Your task to perform on an android device: toggle priority inbox in the gmail app Image 0: 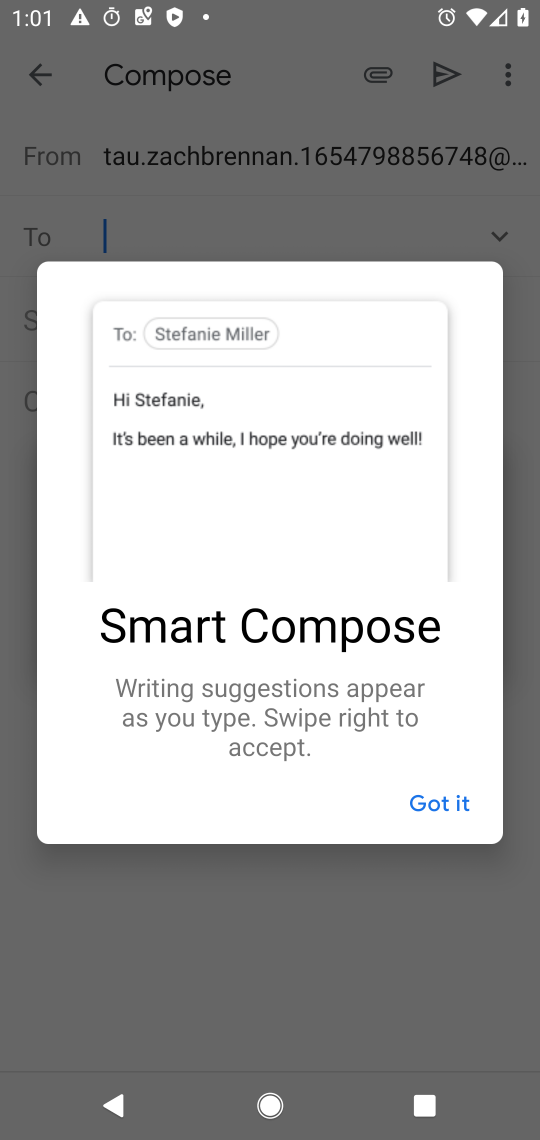
Step 0: click (449, 807)
Your task to perform on an android device: toggle priority inbox in the gmail app Image 1: 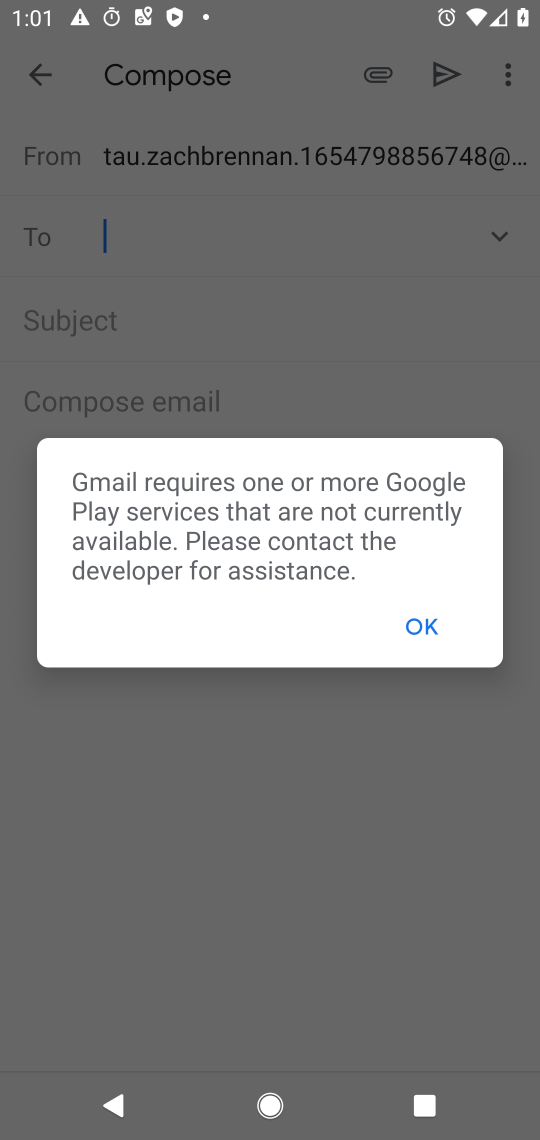
Step 1: click (413, 625)
Your task to perform on an android device: toggle priority inbox in the gmail app Image 2: 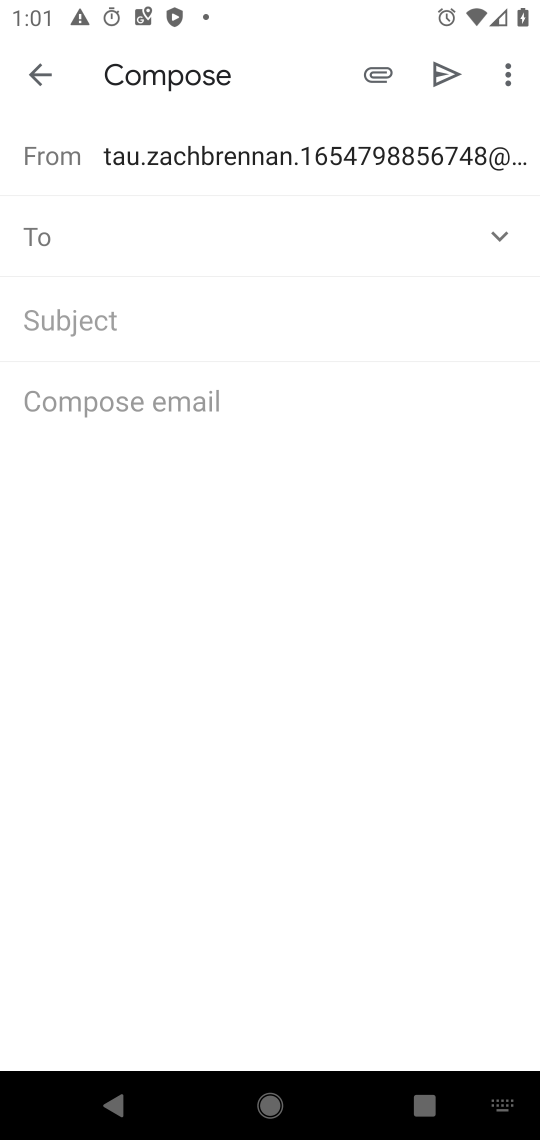
Step 2: click (44, 78)
Your task to perform on an android device: toggle priority inbox in the gmail app Image 3: 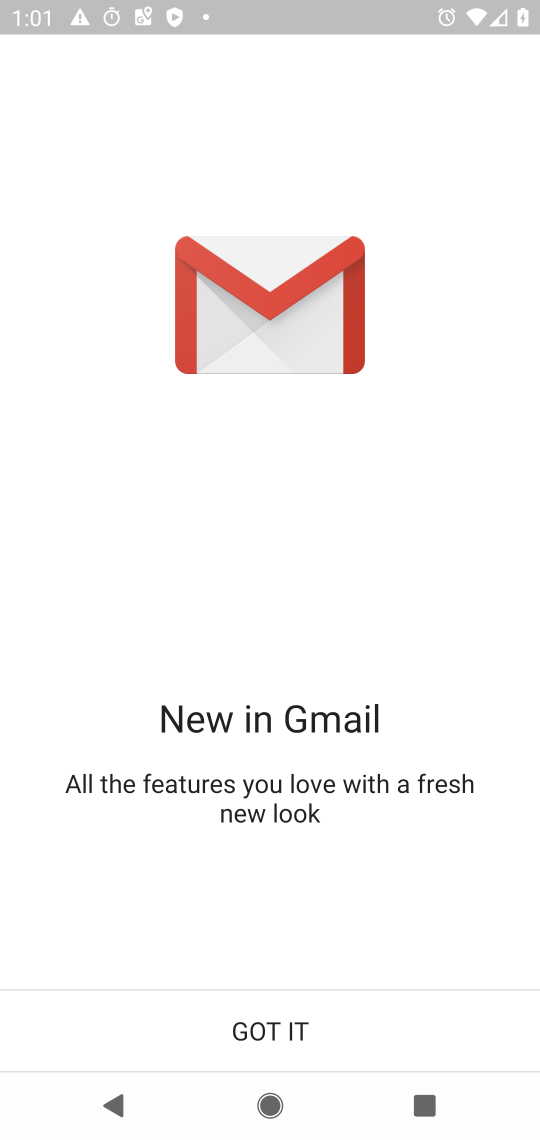
Step 3: click (350, 1046)
Your task to perform on an android device: toggle priority inbox in the gmail app Image 4: 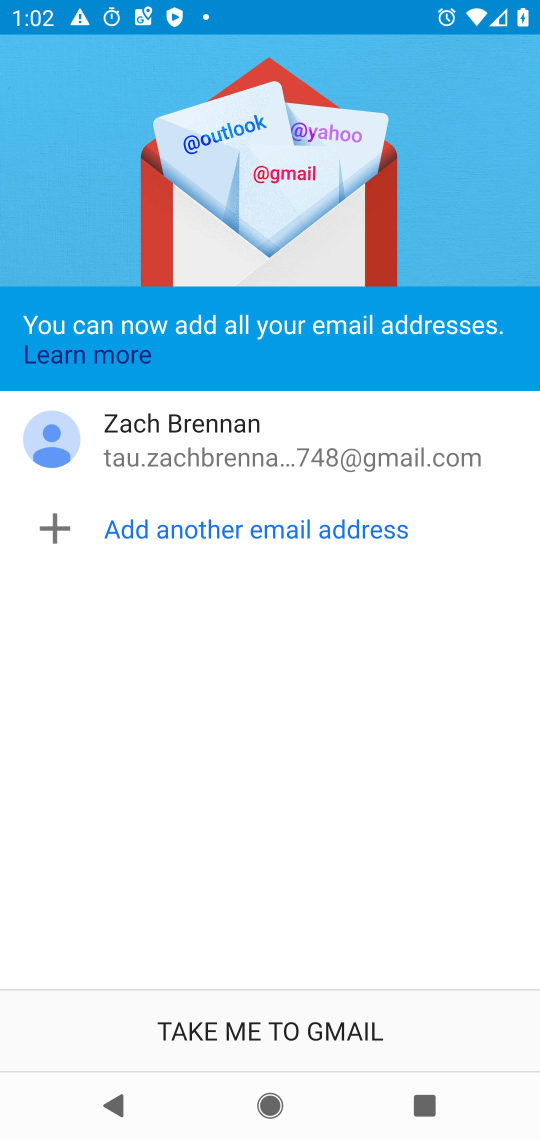
Step 4: click (310, 997)
Your task to perform on an android device: toggle priority inbox in the gmail app Image 5: 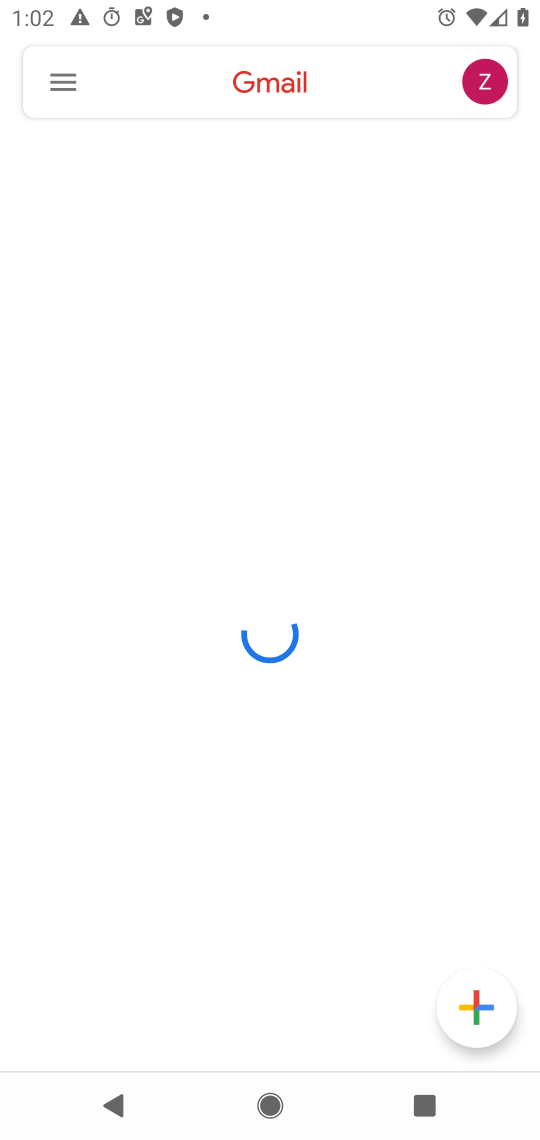
Step 5: click (67, 73)
Your task to perform on an android device: toggle priority inbox in the gmail app Image 6: 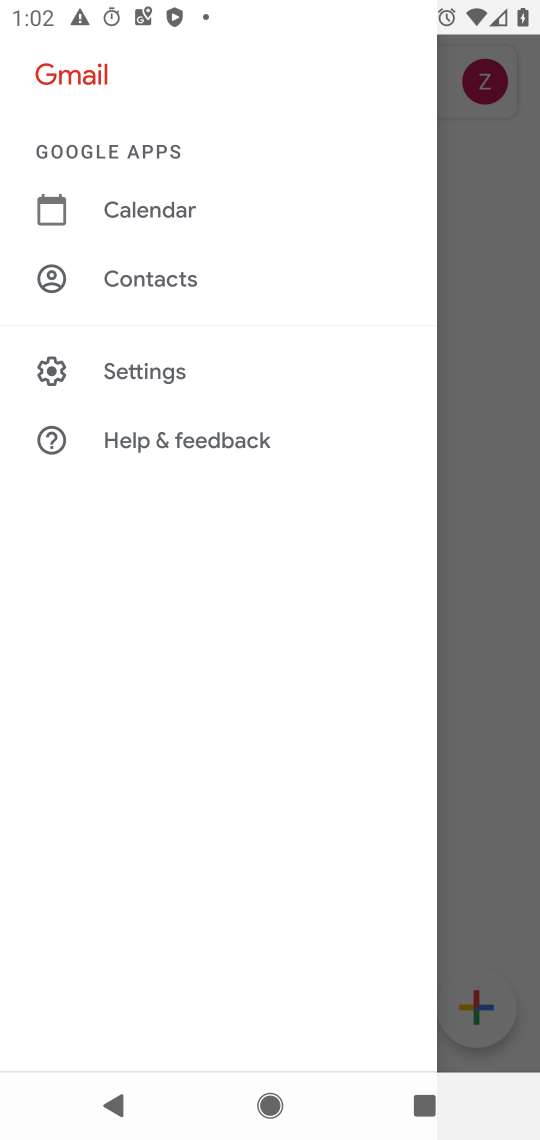
Step 6: click (120, 366)
Your task to perform on an android device: toggle priority inbox in the gmail app Image 7: 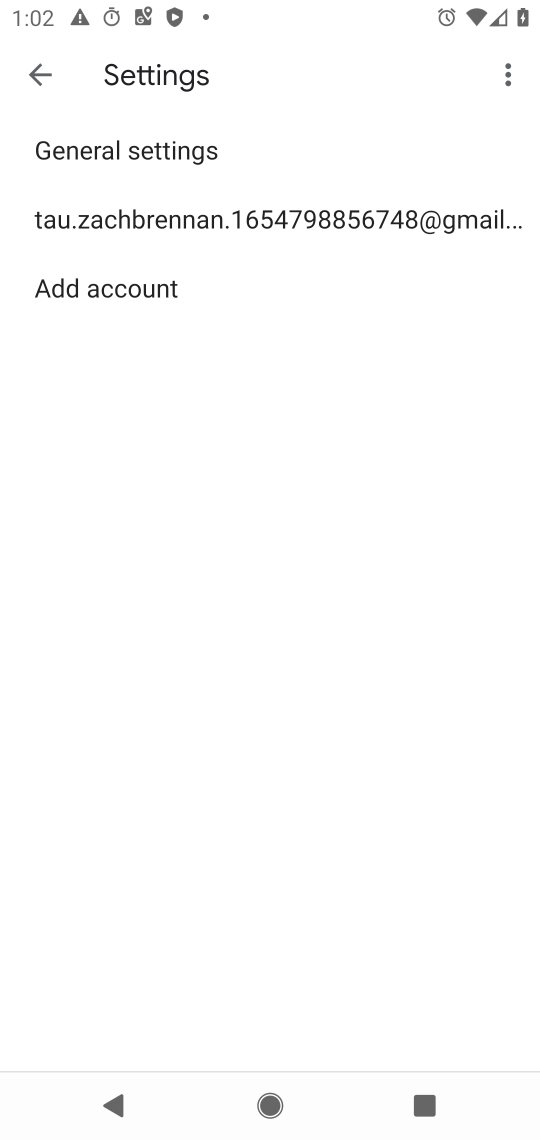
Step 7: click (154, 232)
Your task to perform on an android device: toggle priority inbox in the gmail app Image 8: 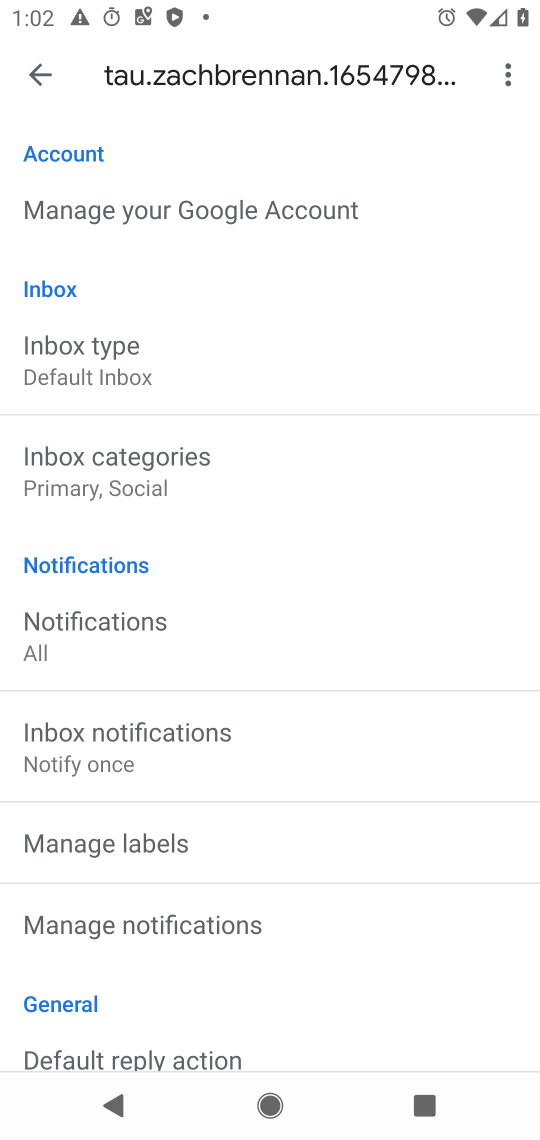
Step 8: click (144, 368)
Your task to perform on an android device: toggle priority inbox in the gmail app Image 9: 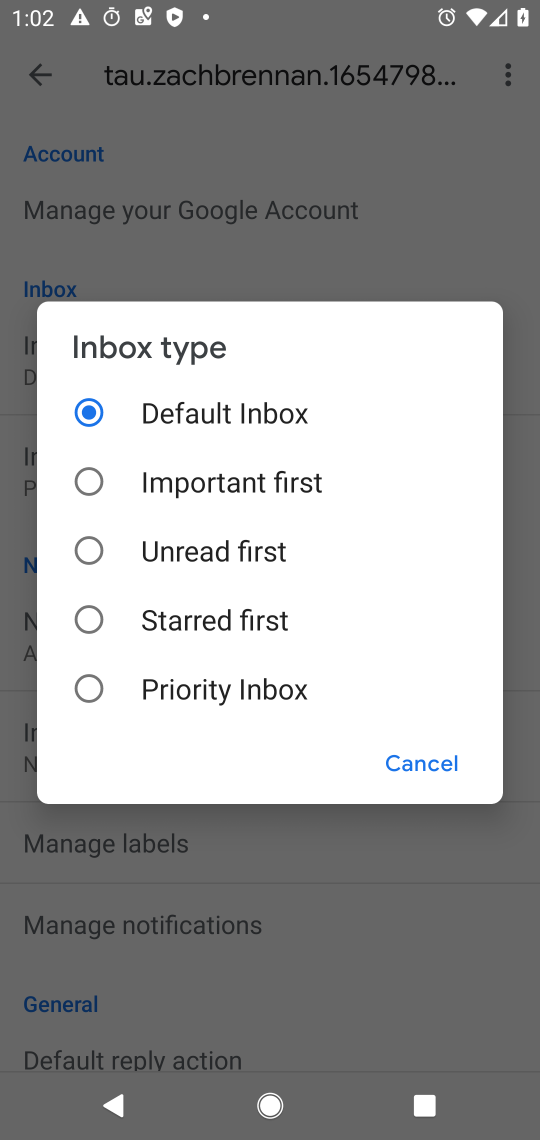
Step 9: click (179, 690)
Your task to perform on an android device: toggle priority inbox in the gmail app Image 10: 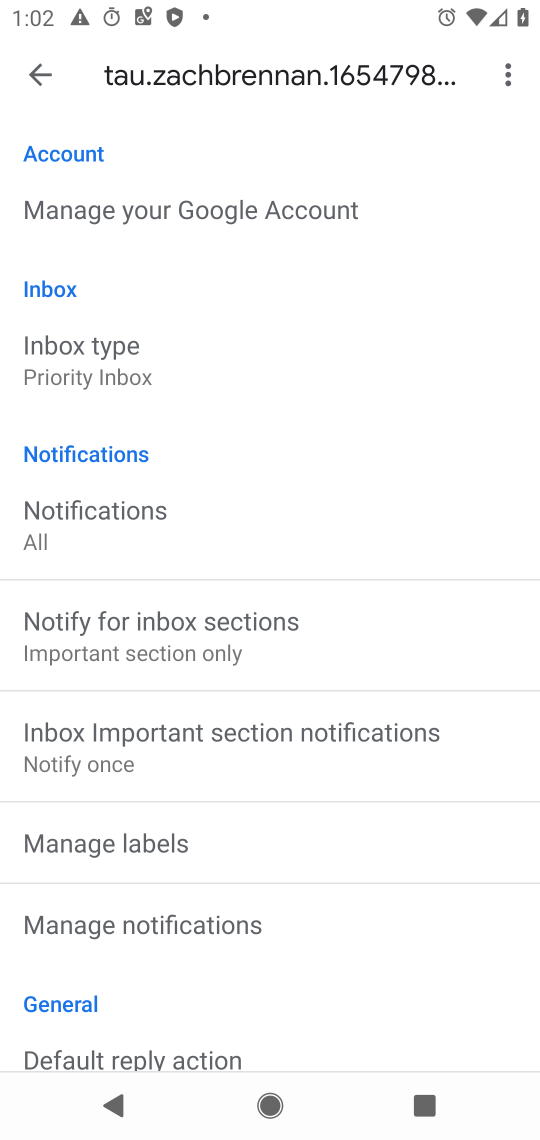
Step 10: task complete